Your task to perform on an android device: What is the recent news? Image 0: 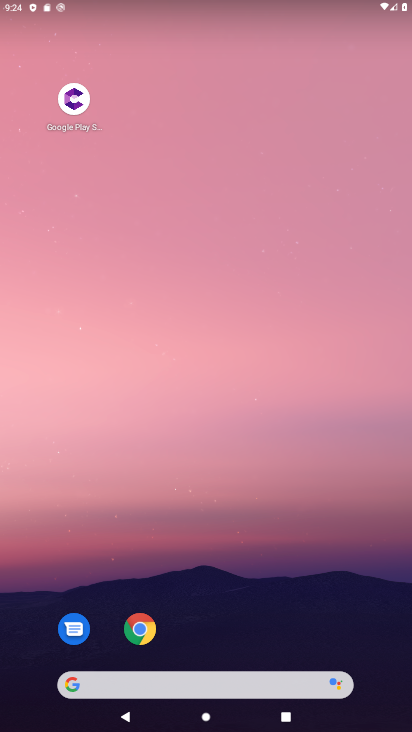
Step 0: click (154, 687)
Your task to perform on an android device: What is the recent news? Image 1: 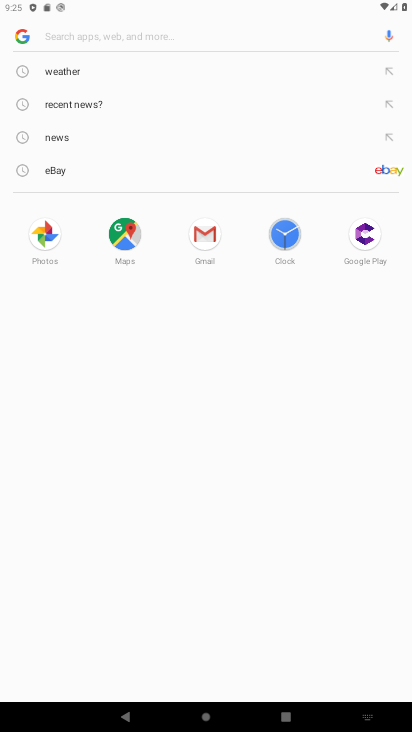
Step 1: click (19, 46)
Your task to perform on an android device: What is the recent news? Image 2: 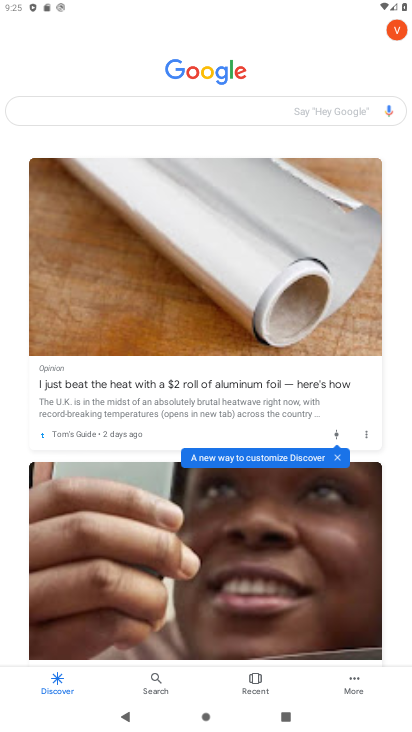
Step 2: task complete